Your task to perform on an android device: Open Youtube and go to "Your channel" Image 0: 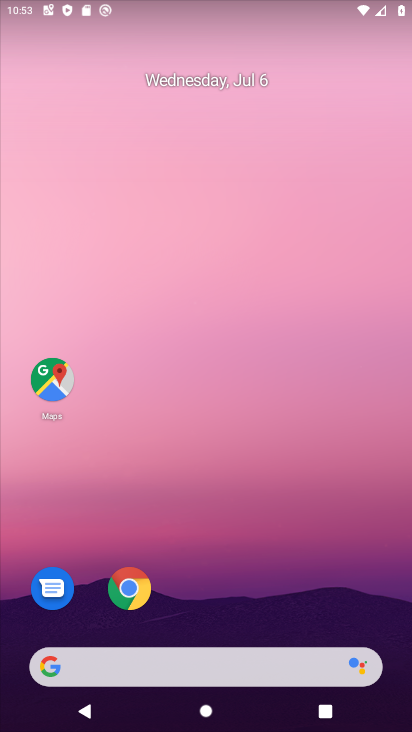
Step 0: drag from (223, 571) to (221, 351)
Your task to perform on an android device: Open Youtube and go to "Your channel" Image 1: 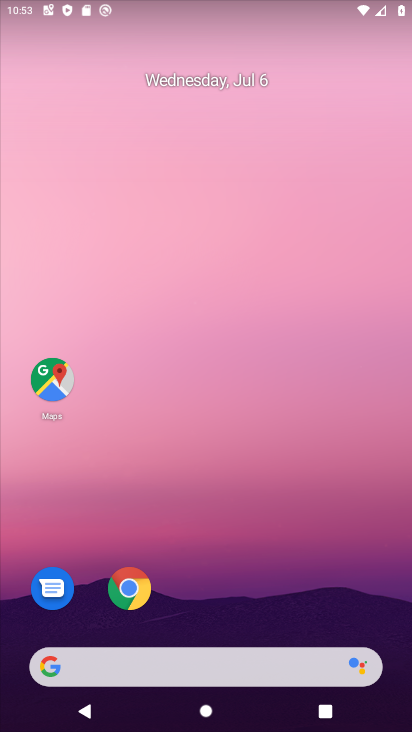
Step 1: drag from (241, 644) to (246, 342)
Your task to perform on an android device: Open Youtube and go to "Your channel" Image 2: 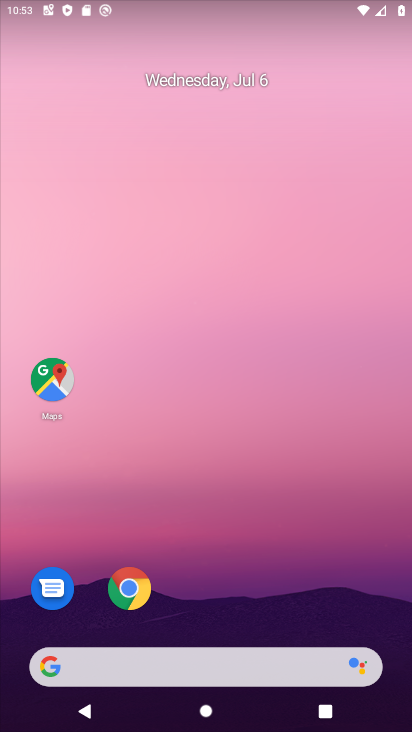
Step 2: drag from (245, 660) to (278, 95)
Your task to perform on an android device: Open Youtube and go to "Your channel" Image 3: 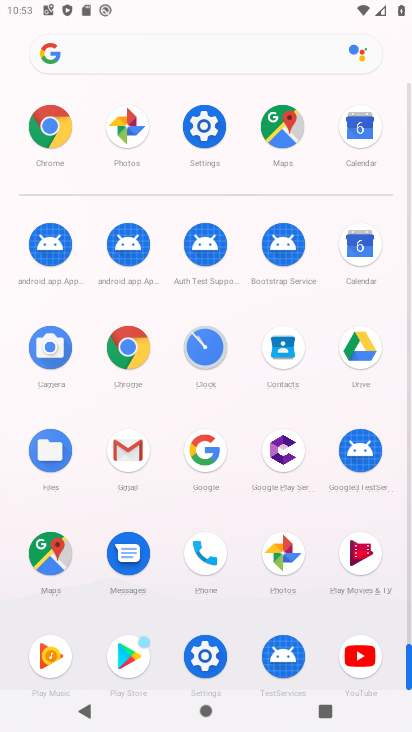
Step 3: click (362, 652)
Your task to perform on an android device: Open Youtube and go to "Your channel" Image 4: 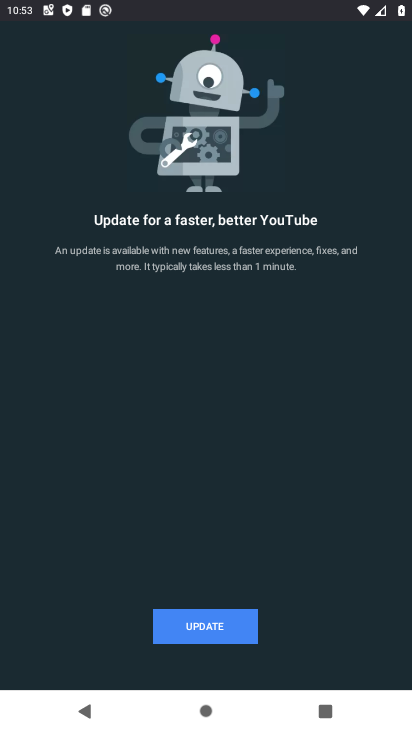
Step 4: task complete